Your task to perform on an android device: Open Youtube and go to the subscriptions tab Image 0: 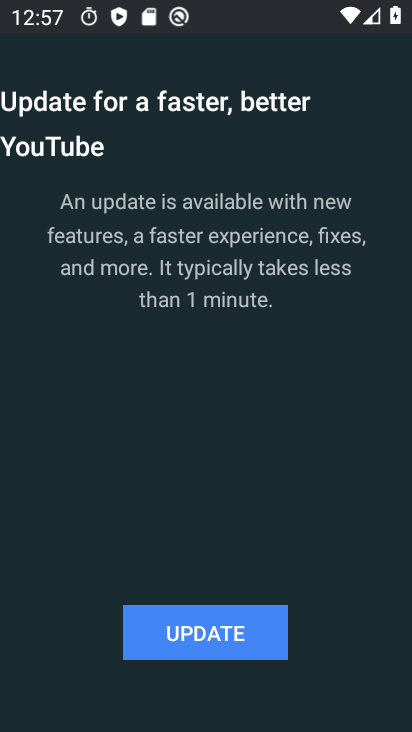
Step 0: click (238, 628)
Your task to perform on an android device: Open Youtube and go to the subscriptions tab Image 1: 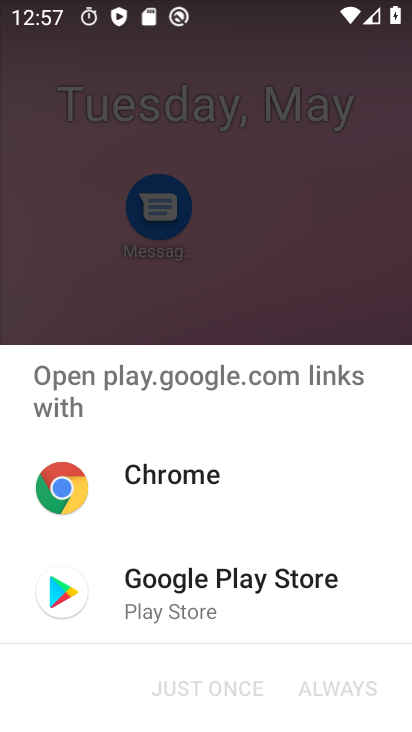
Step 1: click (207, 592)
Your task to perform on an android device: Open Youtube and go to the subscriptions tab Image 2: 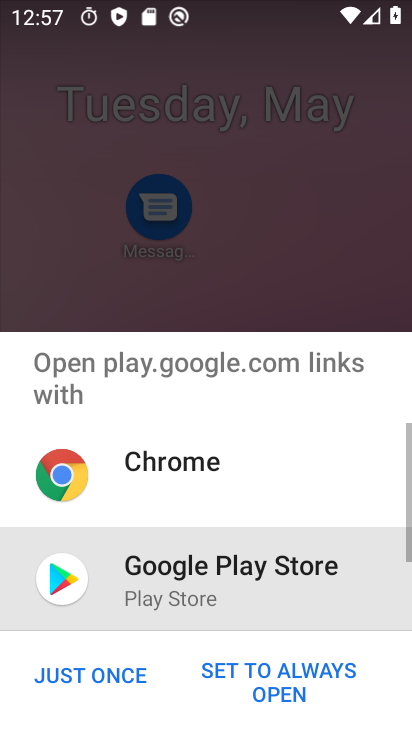
Step 2: click (122, 673)
Your task to perform on an android device: Open Youtube and go to the subscriptions tab Image 3: 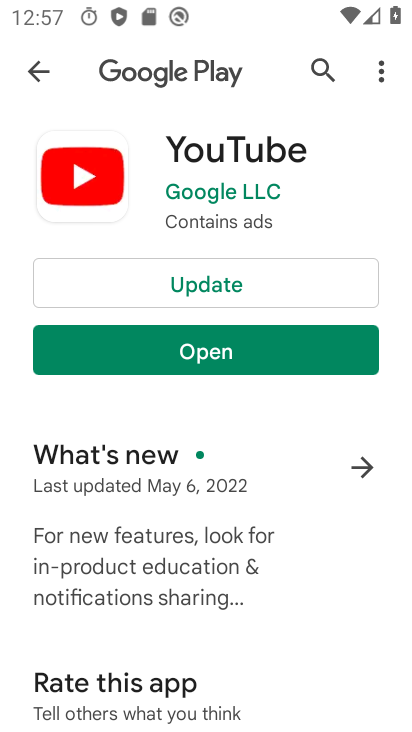
Step 3: click (220, 282)
Your task to perform on an android device: Open Youtube and go to the subscriptions tab Image 4: 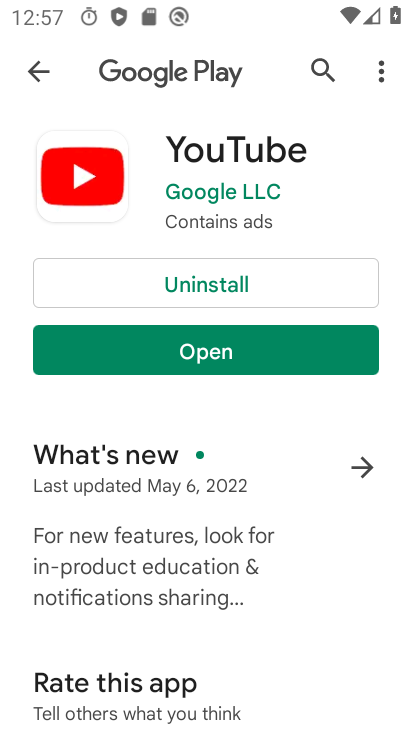
Step 4: click (216, 353)
Your task to perform on an android device: Open Youtube and go to the subscriptions tab Image 5: 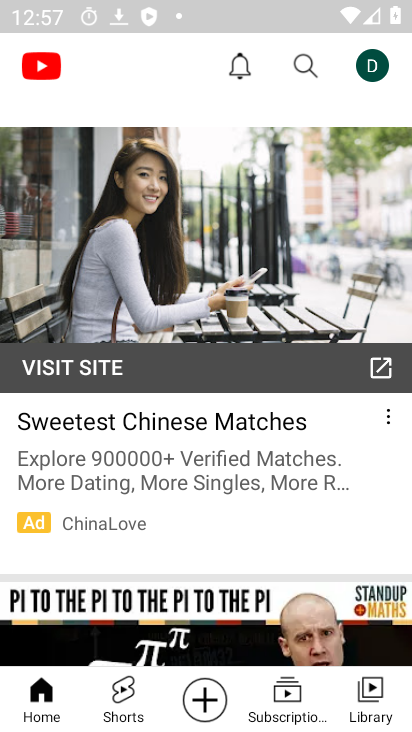
Step 5: click (290, 701)
Your task to perform on an android device: Open Youtube and go to the subscriptions tab Image 6: 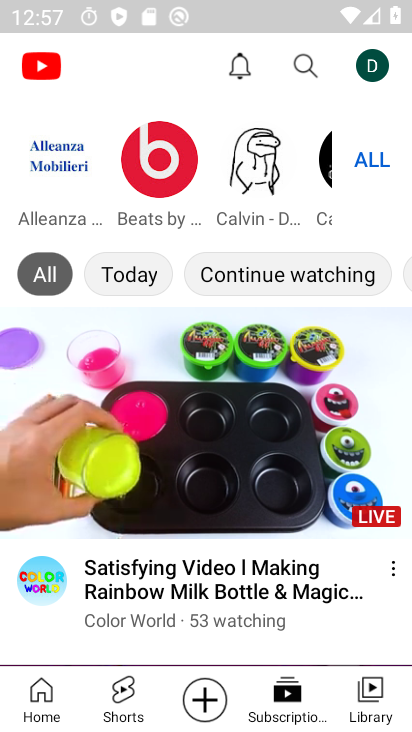
Step 6: task complete